Your task to perform on an android device: Open eBay Image 0: 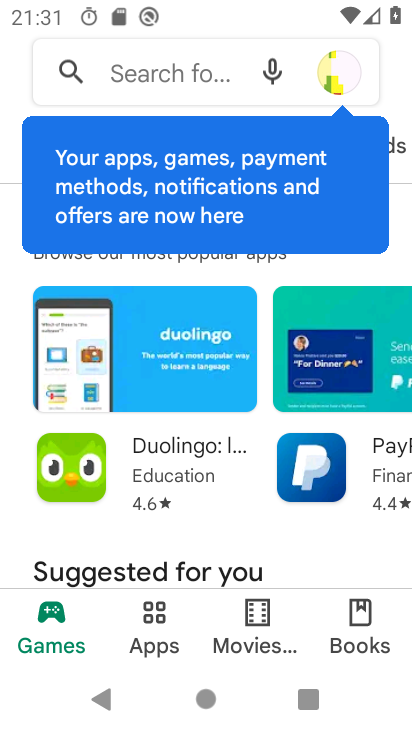
Step 0: press home button
Your task to perform on an android device: Open eBay Image 1: 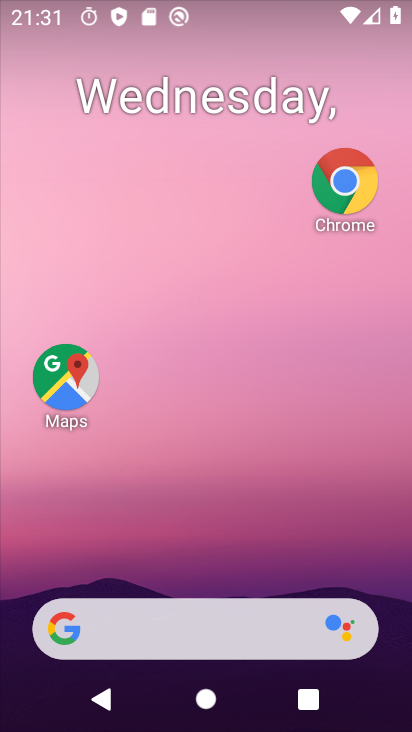
Step 1: drag from (257, 665) to (202, 217)
Your task to perform on an android device: Open eBay Image 2: 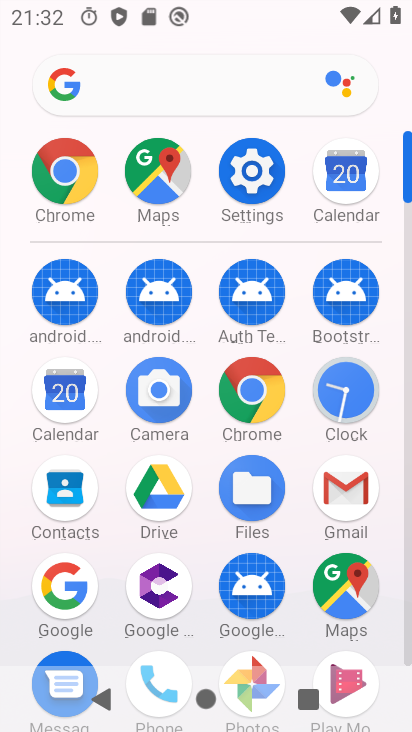
Step 2: click (64, 180)
Your task to perform on an android device: Open eBay Image 3: 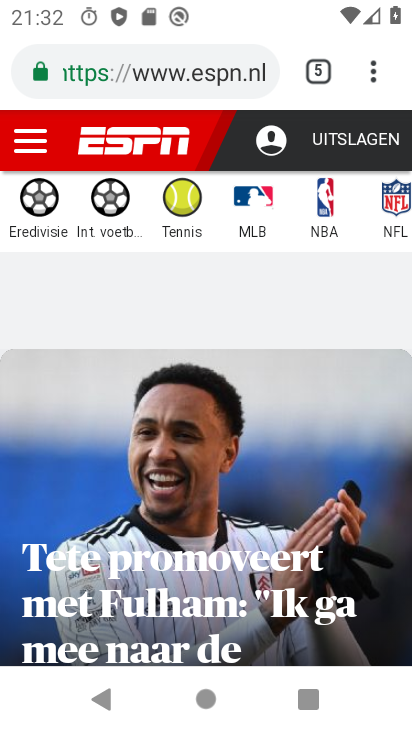
Step 3: click (146, 78)
Your task to perform on an android device: Open eBay Image 4: 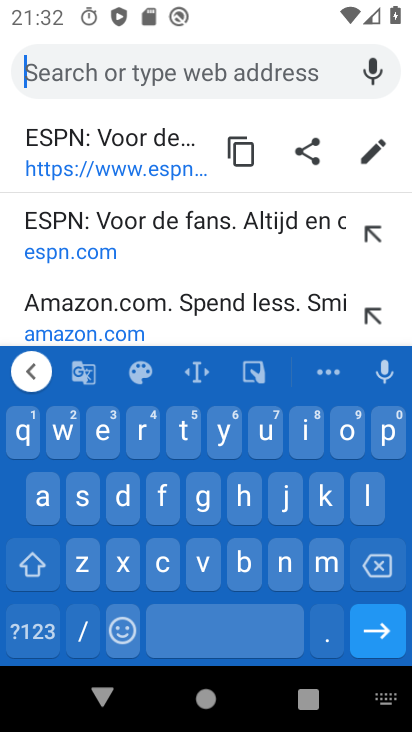
Step 4: click (98, 448)
Your task to perform on an android device: Open eBay Image 5: 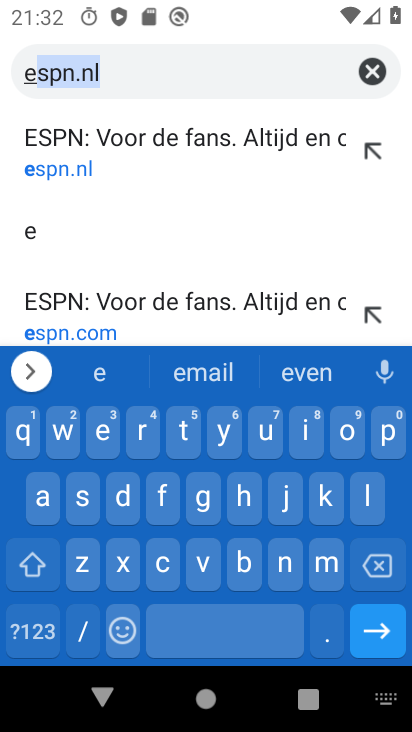
Step 5: click (240, 563)
Your task to perform on an android device: Open eBay Image 6: 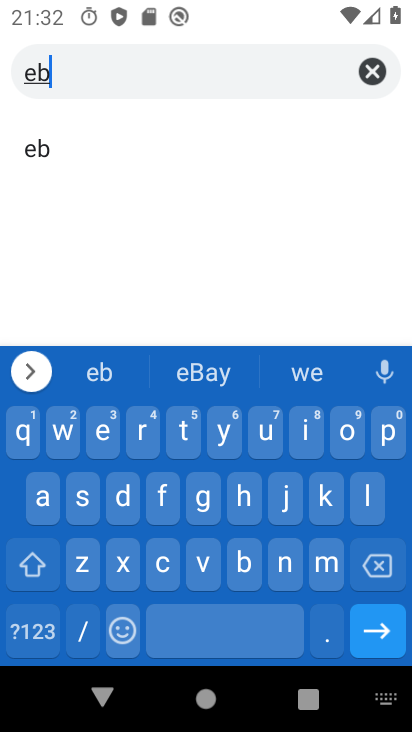
Step 6: click (37, 500)
Your task to perform on an android device: Open eBay Image 7: 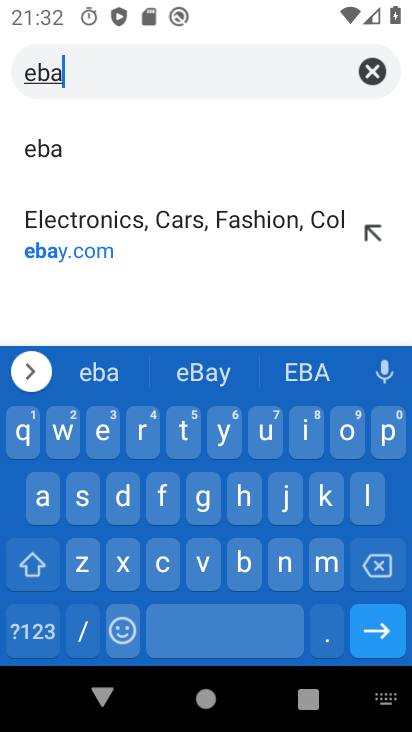
Step 7: click (226, 437)
Your task to perform on an android device: Open eBay Image 8: 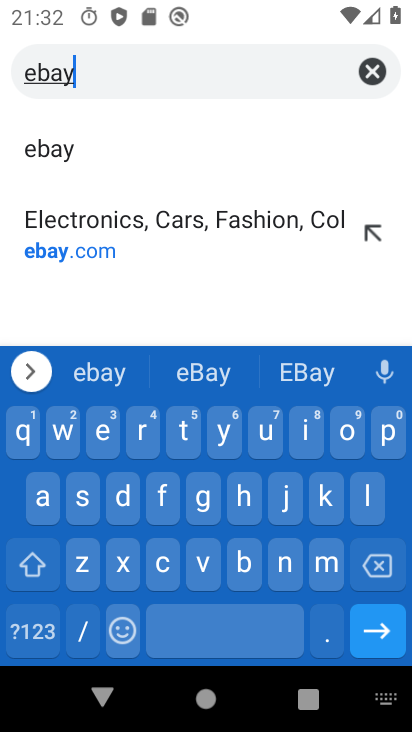
Step 8: click (363, 631)
Your task to perform on an android device: Open eBay Image 9: 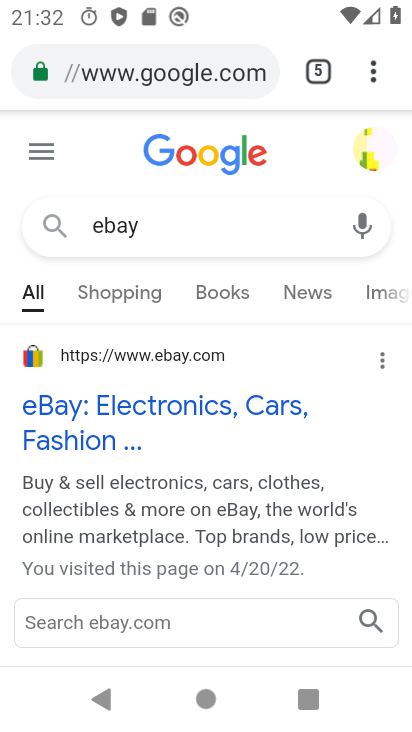
Step 9: click (142, 409)
Your task to perform on an android device: Open eBay Image 10: 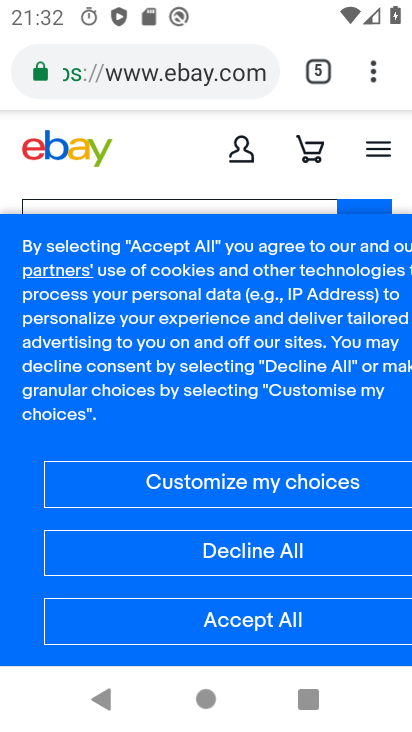
Step 10: task complete